Your task to perform on an android device: Open Wikipedia Image 0: 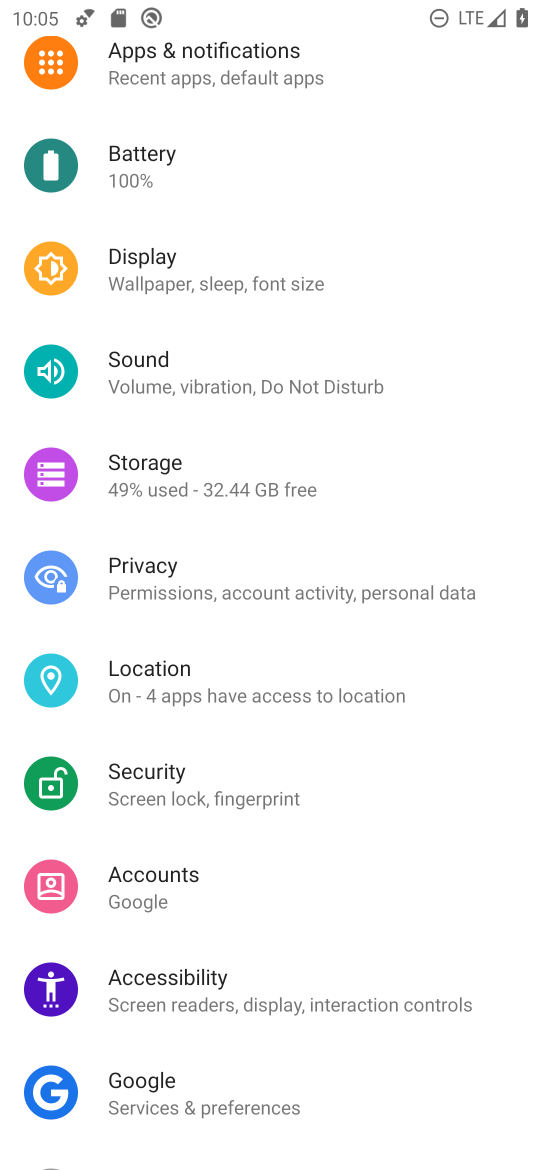
Step 0: press home button
Your task to perform on an android device: Open Wikipedia Image 1: 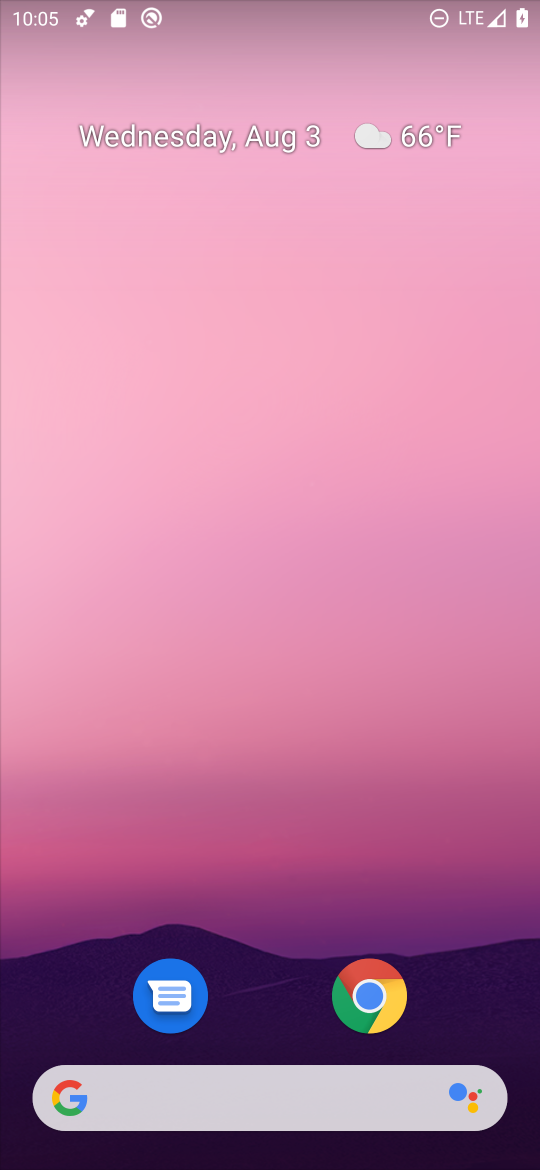
Step 1: click (379, 1003)
Your task to perform on an android device: Open Wikipedia Image 2: 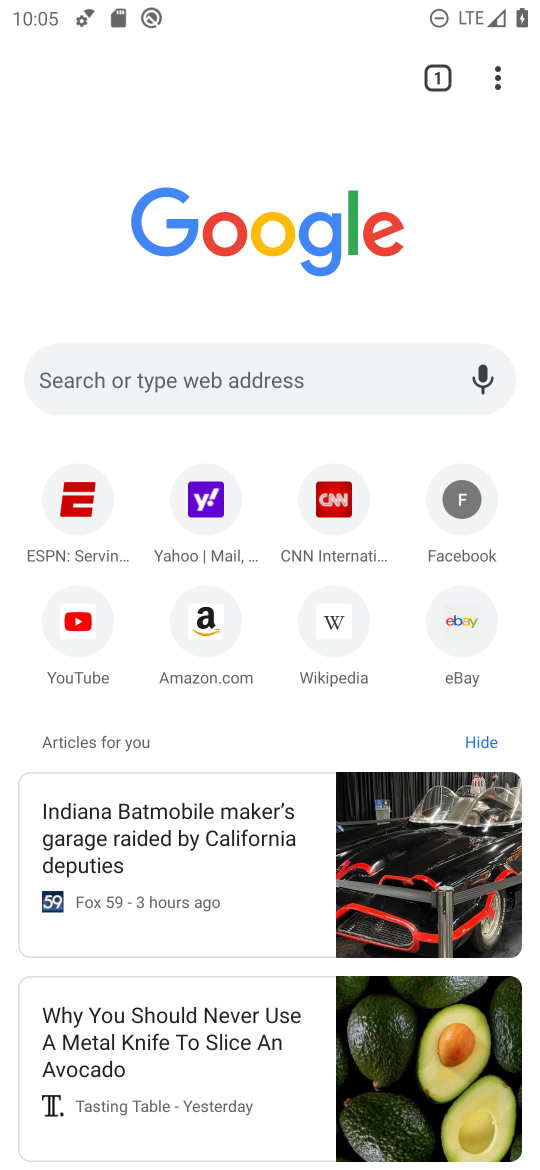
Step 2: click (342, 625)
Your task to perform on an android device: Open Wikipedia Image 3: 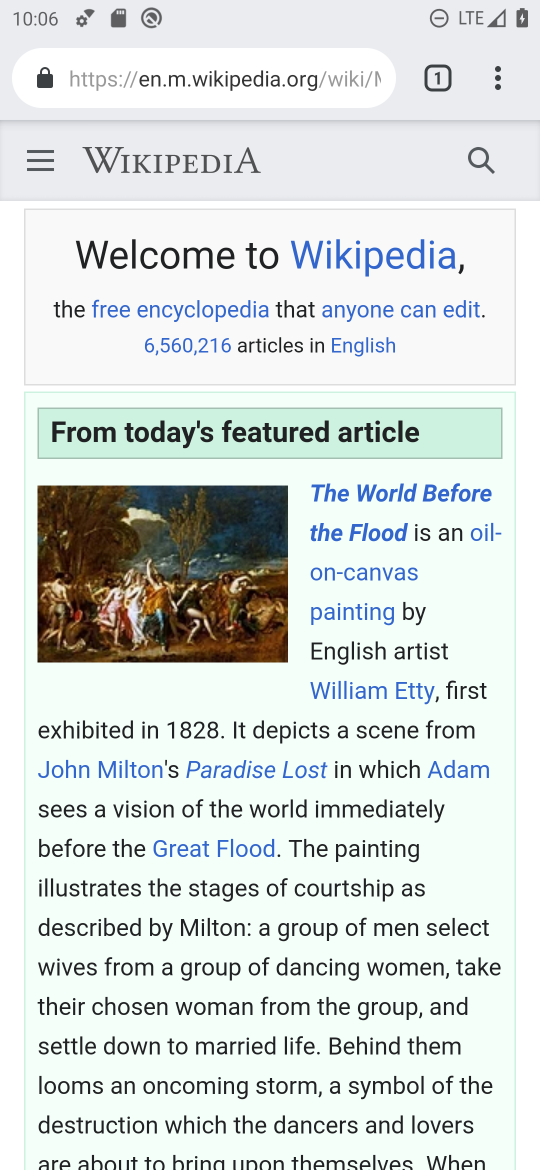
Step 3: task complete